Your task to perform on an android device: Open eBay Image 0: 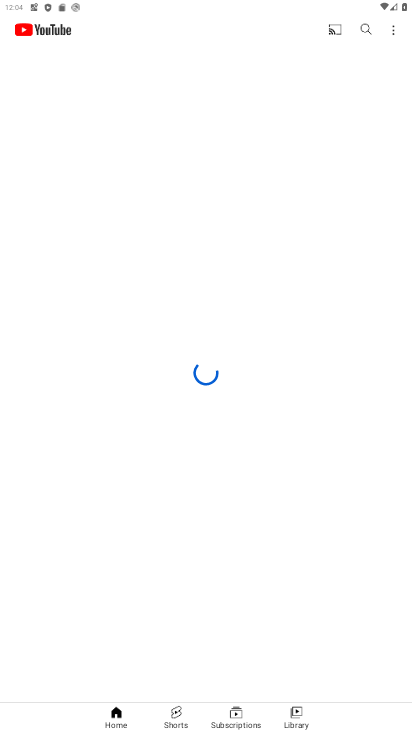
Step 0: press home button
Your task to perform on an android device: Open eBay Image 1: 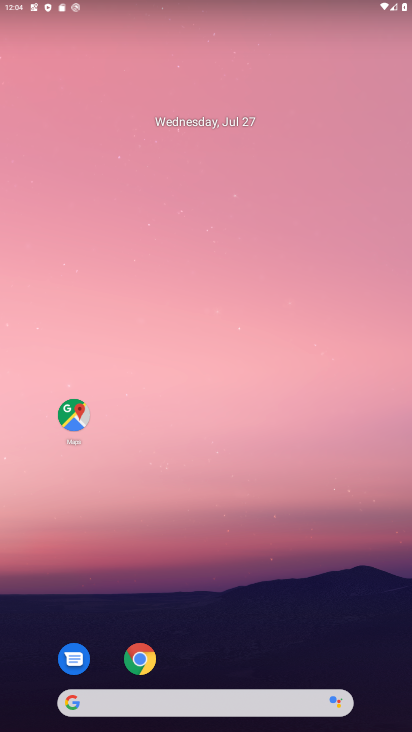
Step 1: click (134, 670)
Your task to perform on an android device: Open eBay Image 2: 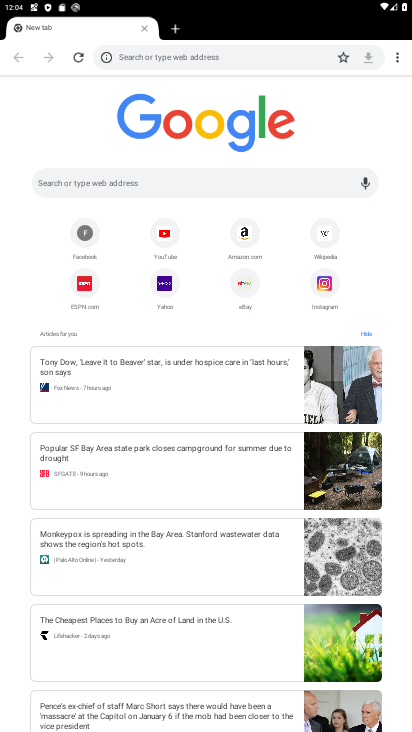
Step 2: click (194, 55)
Your task to perform on an android device: Open eBay Image 3: 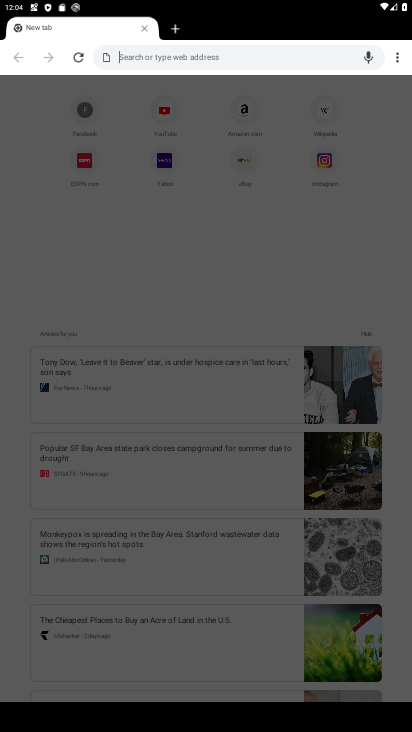
Step 3: type "ebay"
Your task to perform on an android device: Open eBay Image 4: 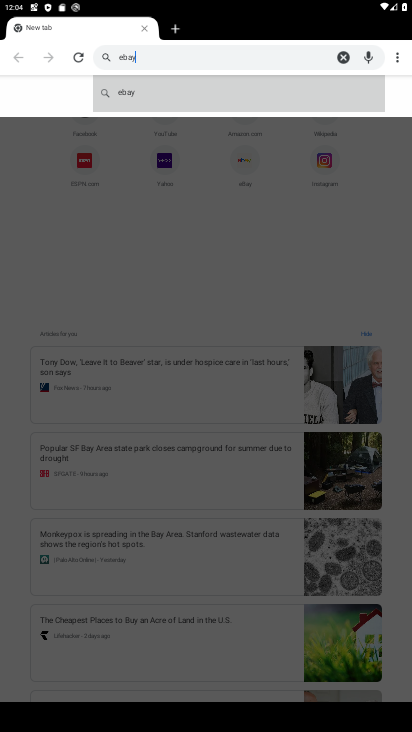
Step 4: type ""
Your task to perform on an android device: Open eBay Image 5: 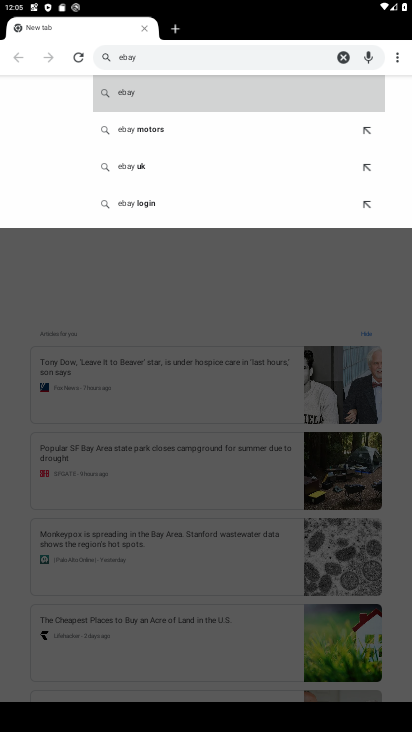
Step 5: click (199, 95)
Your task to perform on an android device: Open eBay Image 6: 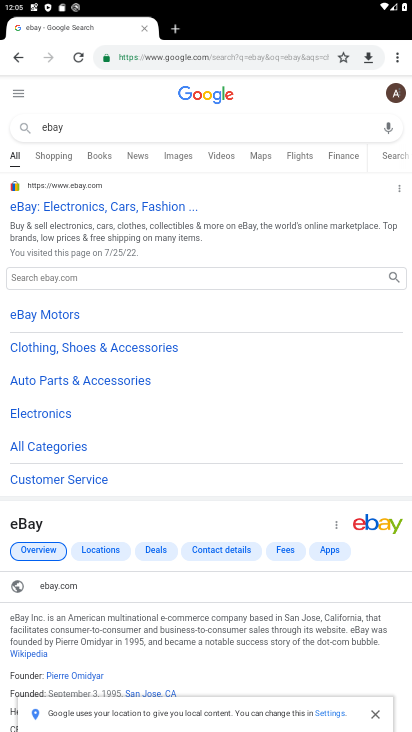
Step 6: click (64, 205)
Your task to perform on an android device: Open eBay Image 7: 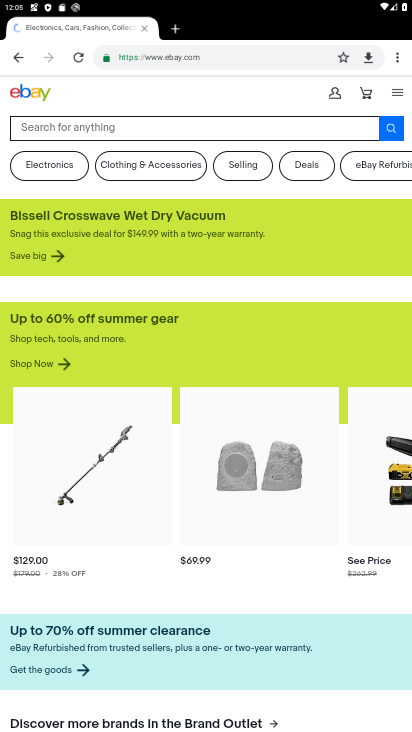
Step 7: task complete